Your task to perform on an android device: Go to battery settings Image 0: 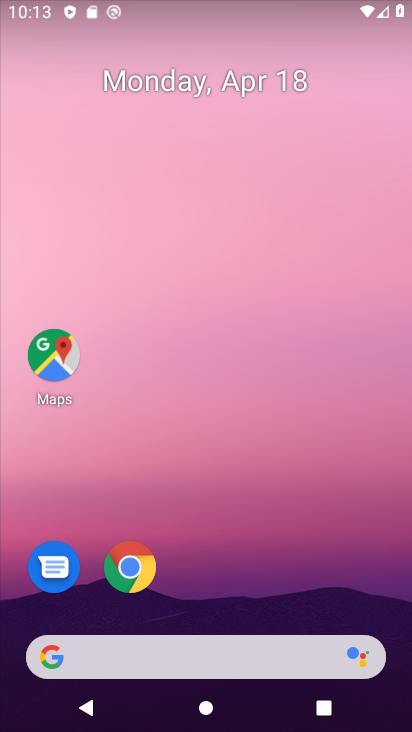
Step 0: drag from (242, 514) to (259, 104)
Your task to perform on an android device: Go to battery settings Image 1: 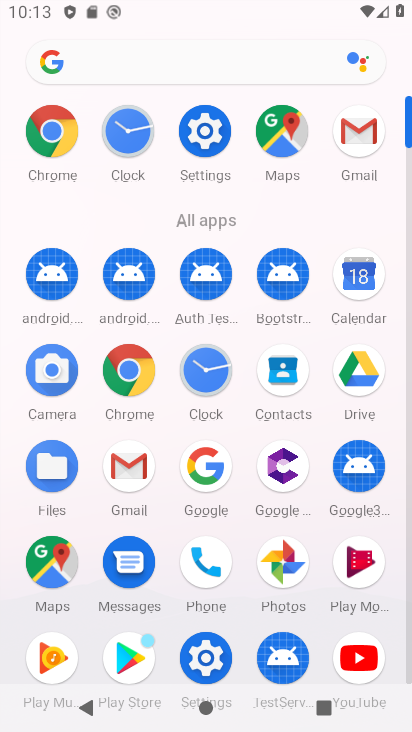
Step 1: click (205, 652)
Your task to perform on an android device: Go to battery settings Image 2: 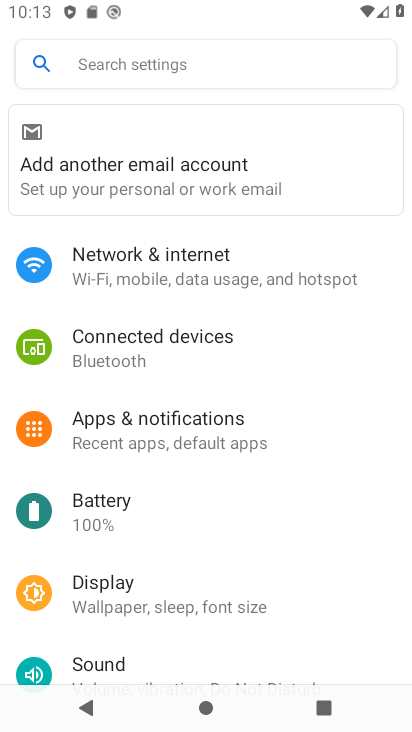
Step 2: click (105, 513)
Your task to perform on an android device: Go to battery settings Image 3: 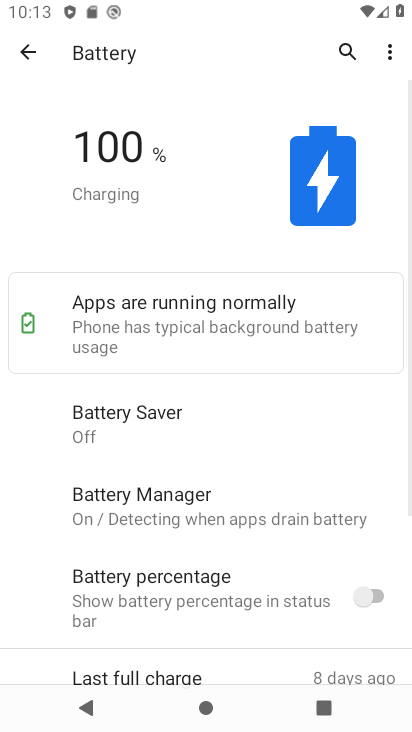
Step 3: task complete